Your task to perform on an android device: clear all cookies in the chrome app Image 0: 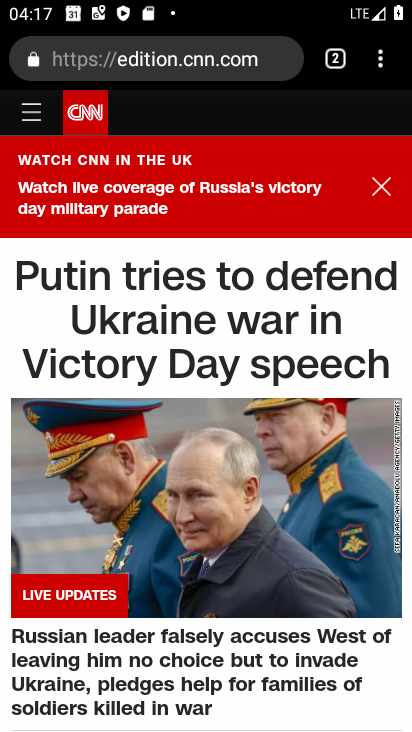
Step 0: press home button
Your task to perform on an android device: clear all cookies in the chrome app Image 1: 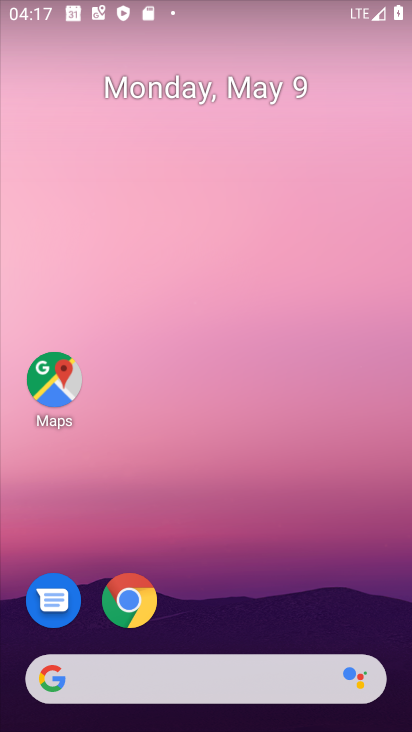
Step 1: drag from (254, 684) to (183, 8)
Your task to perform on an android device: clear all cookies in the chrome app Image 2: 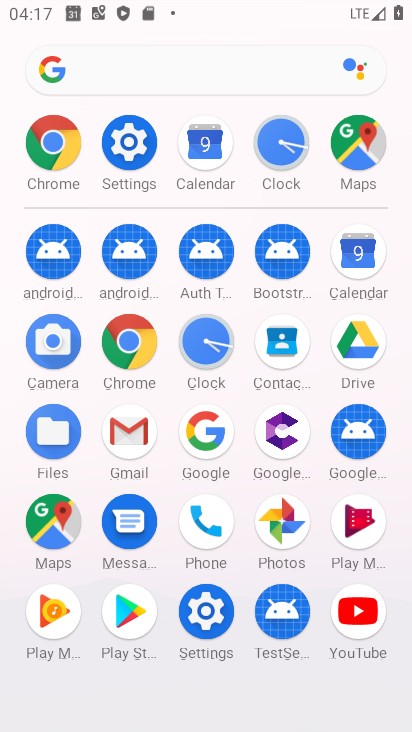
Step 2: click (126, 338)
Your task to perform on an android device: clear all cookies in the chrome app Image 3: 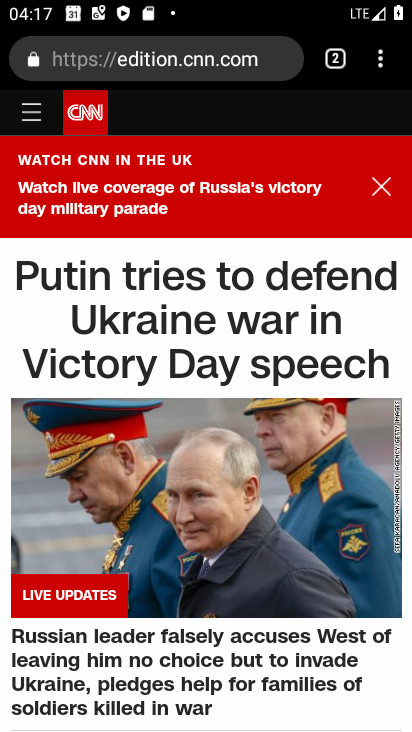
Step 3: drag from (380, 63) to (199, 624)
Your task to perform on an android device: clear all cookies in the chrome app Image 4: 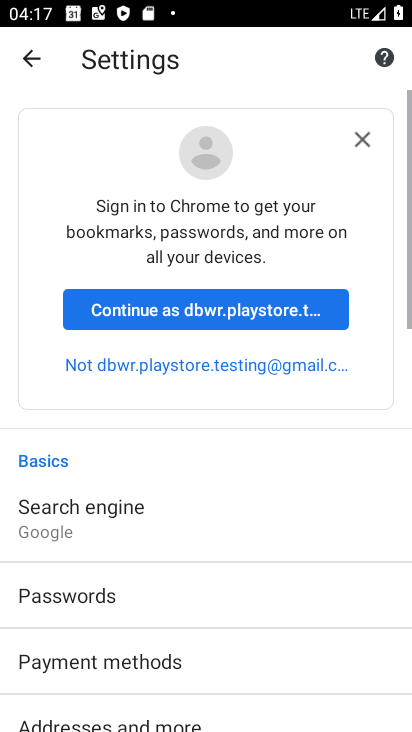
Step 4: drag from (244, 642) to (287, 141)
Your task to perform on an android device: clear all cookies in the chrome app Image 5: 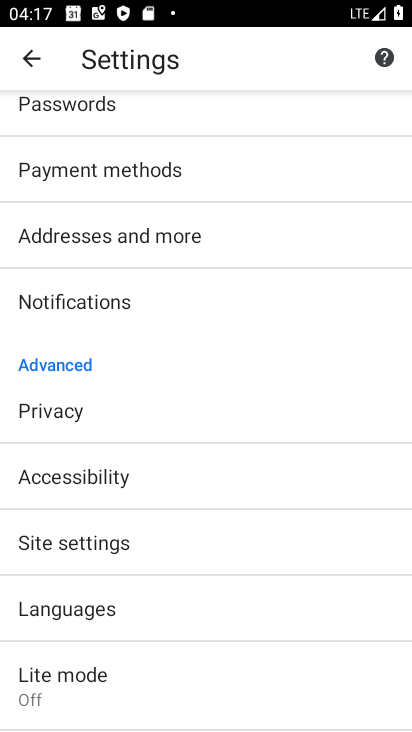
Step 5: click (110, 413)
Your task to perform on an android device: clear all cookies in the chrome app Image 6: 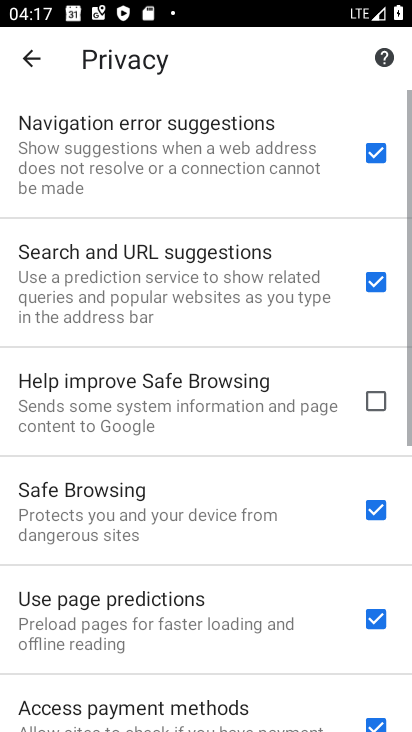
Step 6: drag from (172, 703) to (208, 84)
Your task to perform on an android device: clear all cookies in the chrome app Image 7: 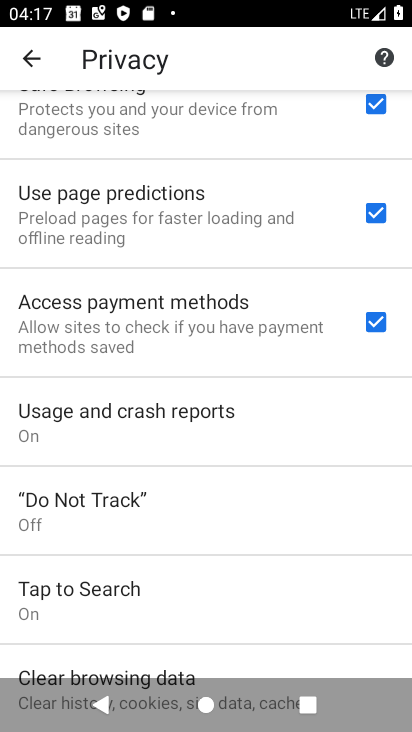
Step 7: drag from (243, 659) to (234, 254)
Your task to perform on an android device: clear all cookies in the chrome app Image 8: 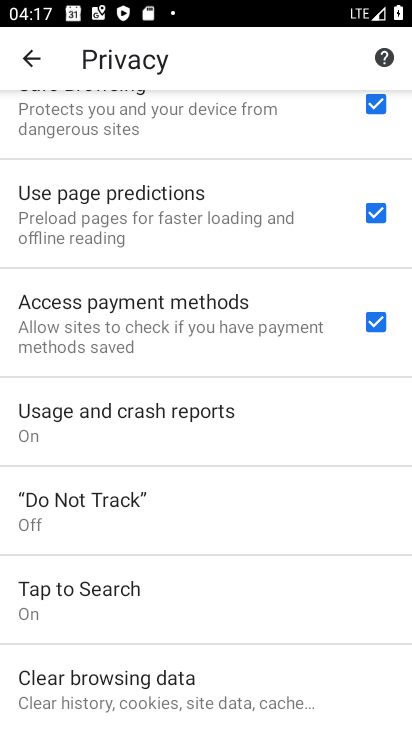
Step 8: click (148, 699)
Your task to perform on an android device: clear all cookies in the chrome app Image 9: 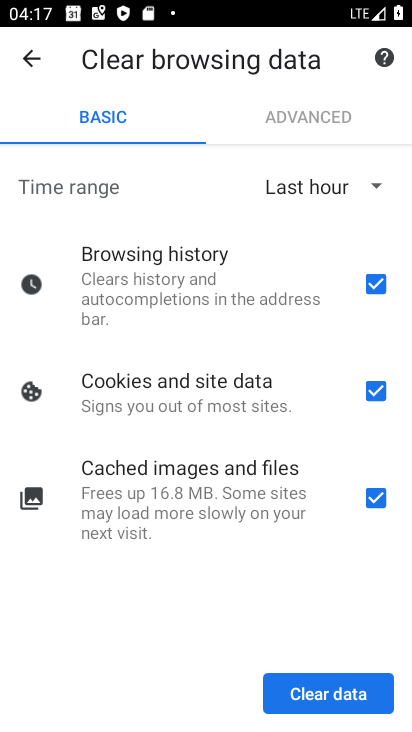
Step 9: click (314, 700)
Your task to perform on an android device: clear all cookies in the chrome app Image 10: 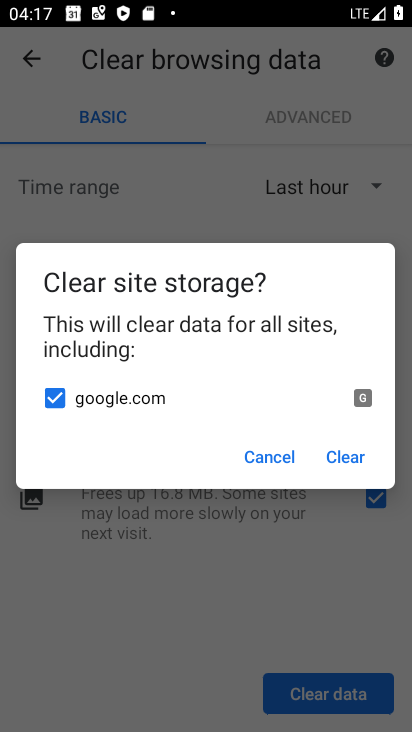
Step 10: click (338, 452)
Your task to perform on an android device: clear all cookies in the chrome app Image 11: 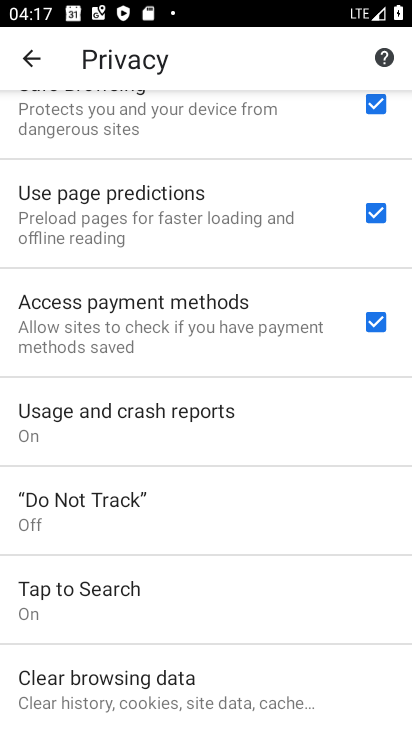
Step 11: task complete